Your task to perform on an android device: Do I have any events today? Image 0: 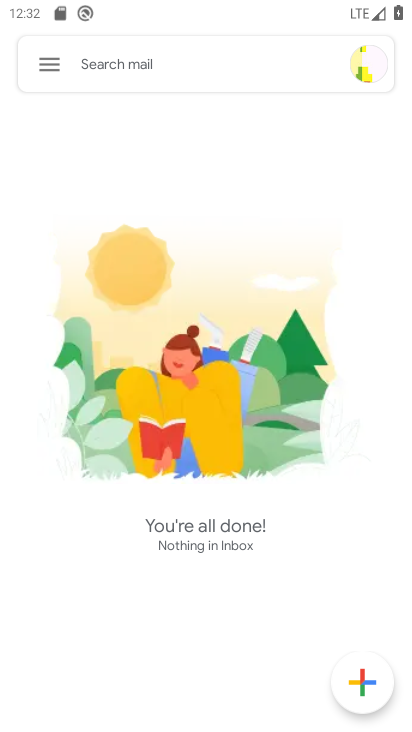
Step 0: press home button
Your task to perform on an android device: Do I have any events today? Image 1: 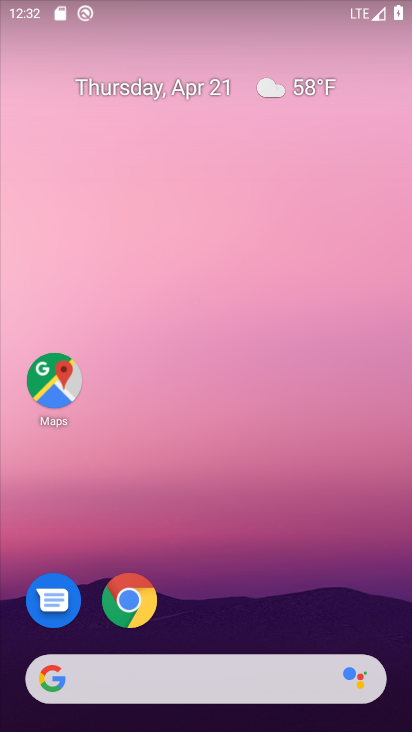
Step 1: drag from (259, 591) to (257, 97)
Your task to perform on an android device: Do I have any events today? Image 2: 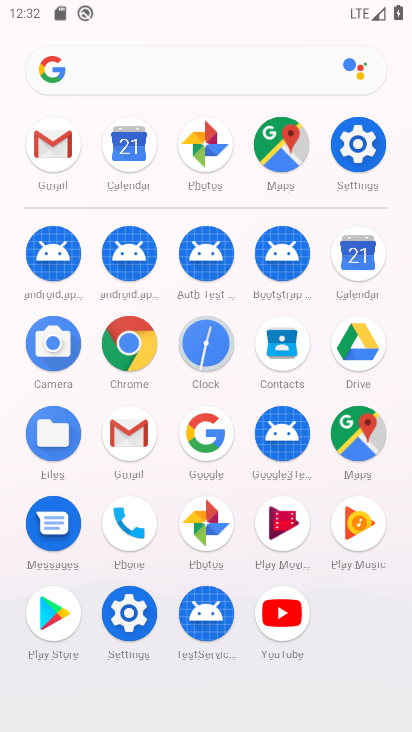
Step 2: click (356, 252)
Your task to perform on an android device: Do I have any events today? Image 3: 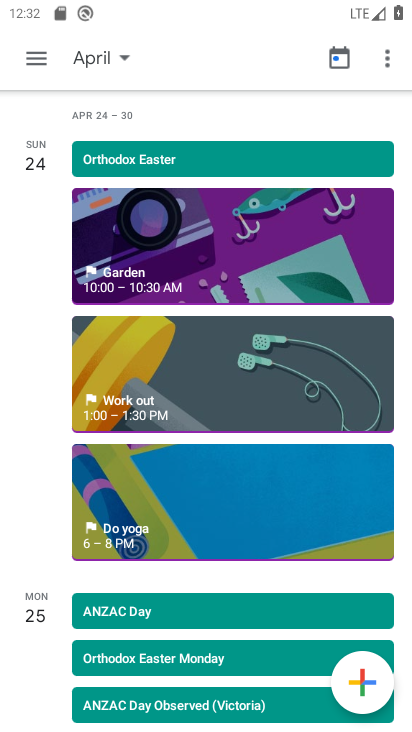
Step 3: task complete